Your task to perform on an android device: add a contact Image 0: 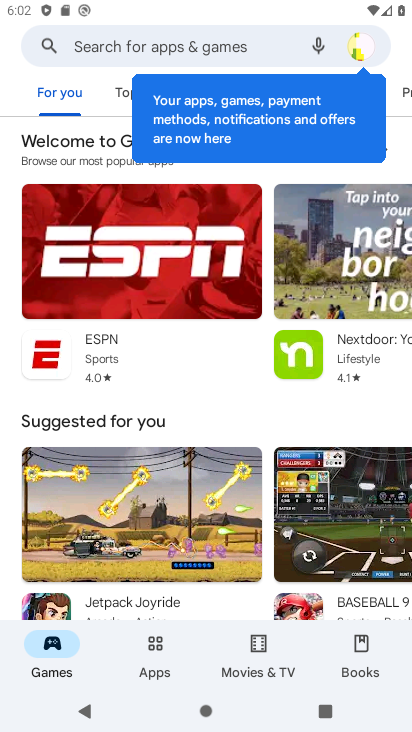
Step 0: press back button
Your task to perform on an android device: add a contact Image 1: 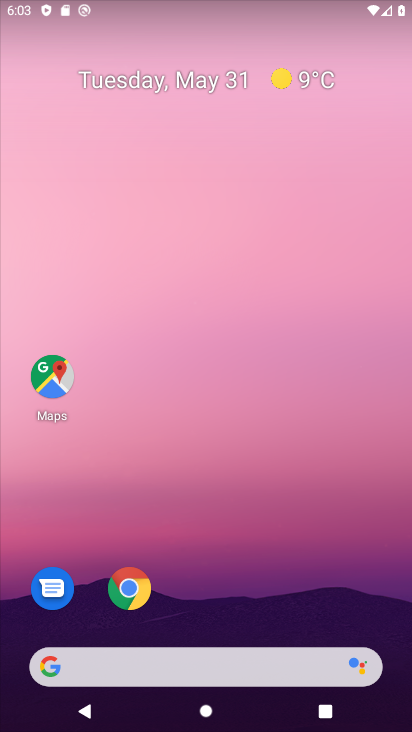
Step 1: press home button
Your task to perform on an android device: add a contact Image 2: 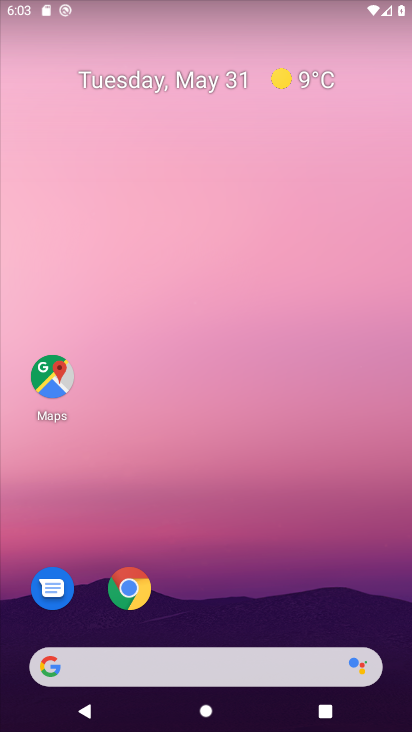
Step 2: click (263, 156)
Your task to perform on an android device: add a contact Image 3: 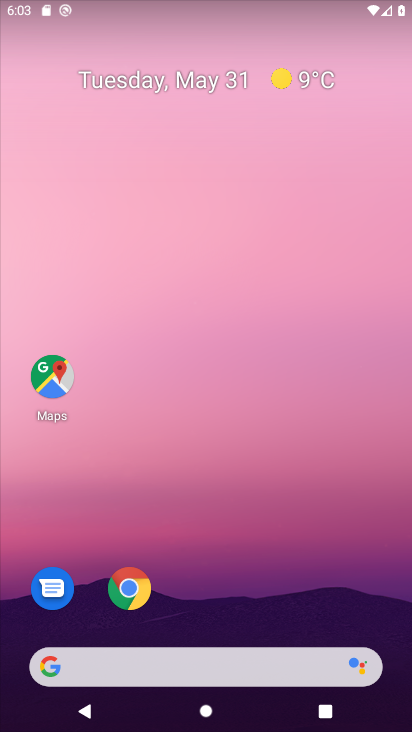
Step 3: drag from (198, 595) to (260, 125)
Your task to perform on an android device: add a contact Image 4: 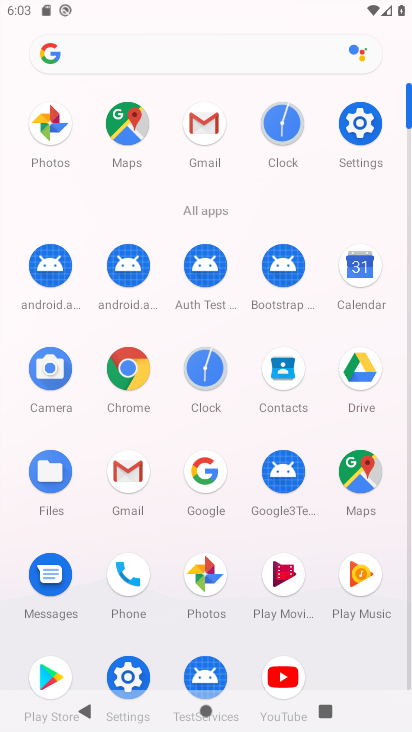
Step 4: click (277, 387)
Your task to perform on an android device: add a contact Image 5: 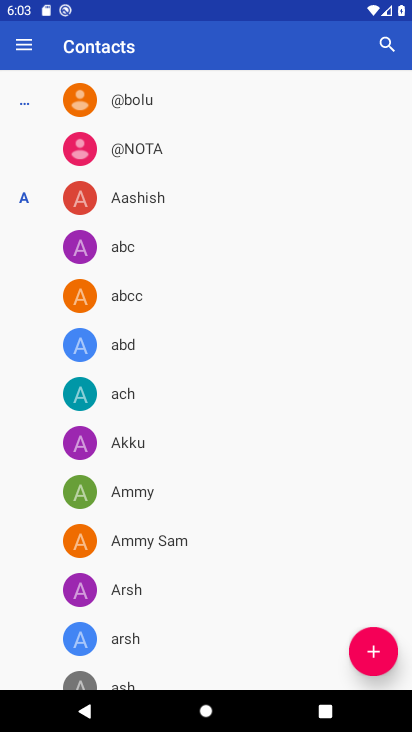
Step 5: click (368, 659)
Your task to perform on an android device: add a contact Image 6: 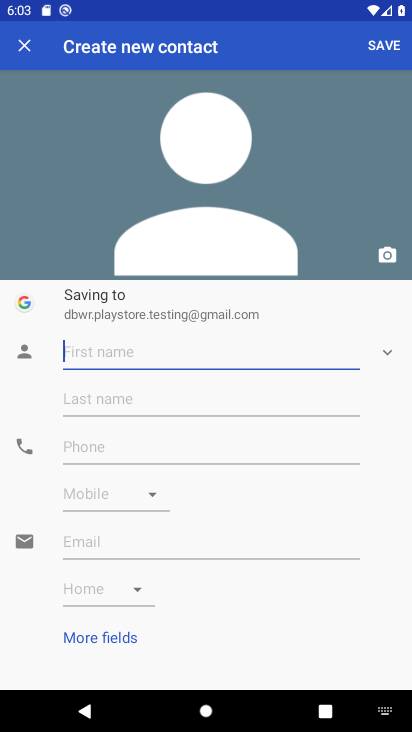
Step 6: click (194, 358)
Your task to perform on an android device: add a contact Image 7: 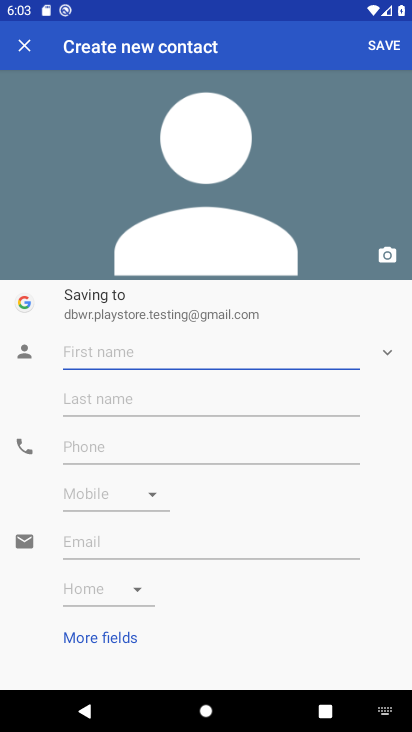
Step 7: type ""
Your task to perform on an android device: add a contact Image 8: 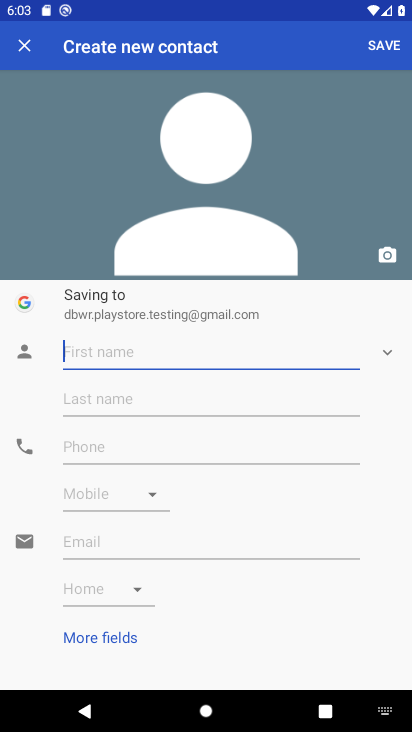
Step 8: type "Nupur"
Your task to perform on an android device: add a contact Image 9: 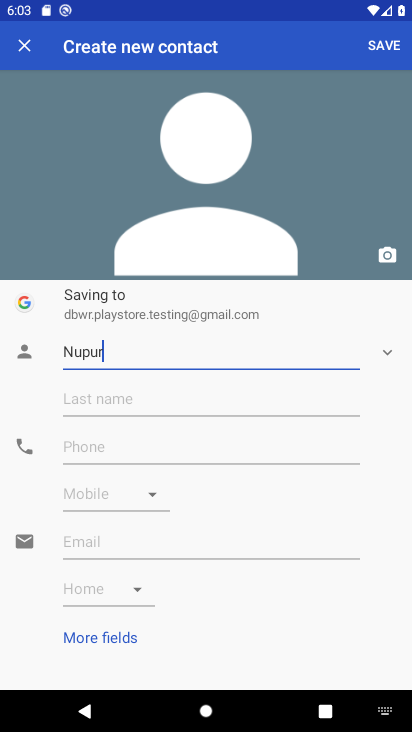
Step 9: click (288, 436)
Your task to perform on an android device: add a contact Image 10: 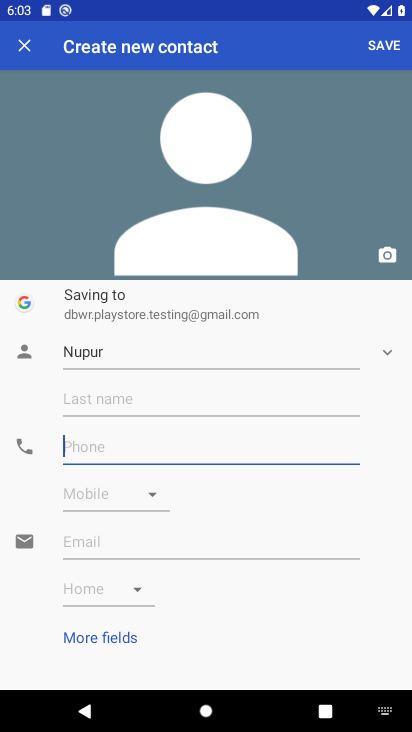
Step 10: type "7667766700"
Your task to perform on an android device: add a contact Image 11: 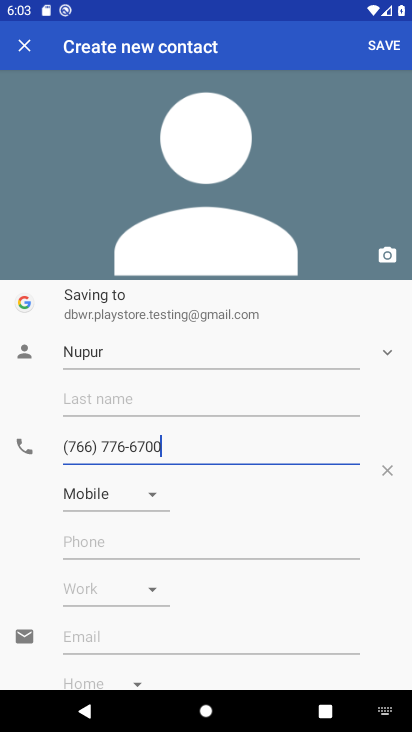
Step 11: click (379, 45)
Your task to perform on an android device: add a contact Image 12: 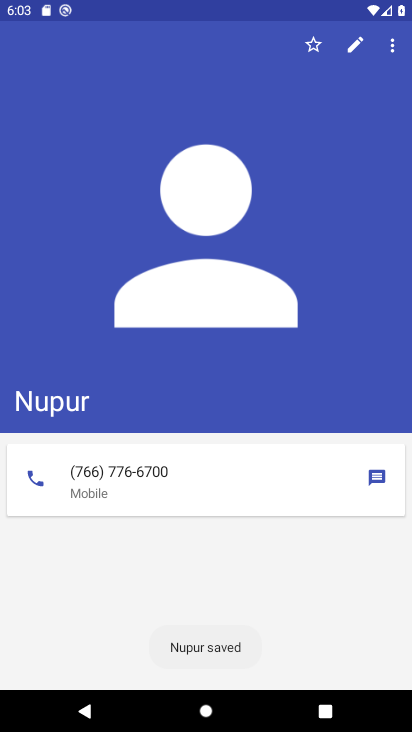
Step 12: task complete